Your task to perform on an android device: Open wifi settings Image 0: 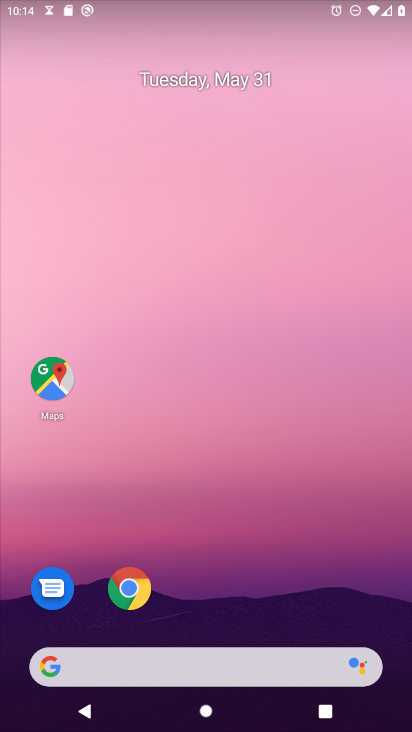
Step 0: drag from (230, 594) to (190, 105)
Your task to perform on an android device: Open wifi settings Image 1: 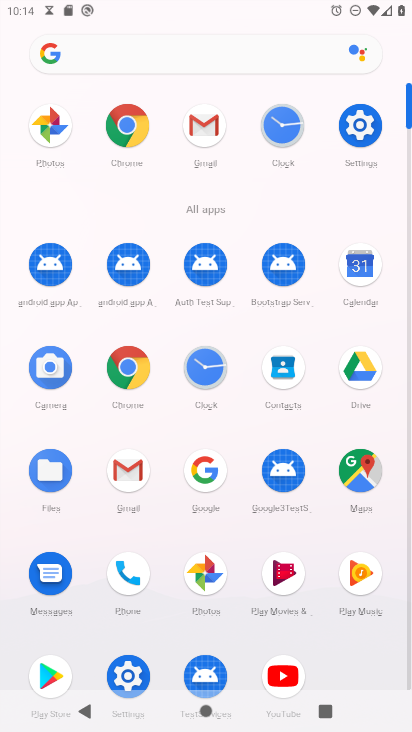
Step 1: click (359, 125)
Your task to perform on an android device: Open wifi settings Image 2: 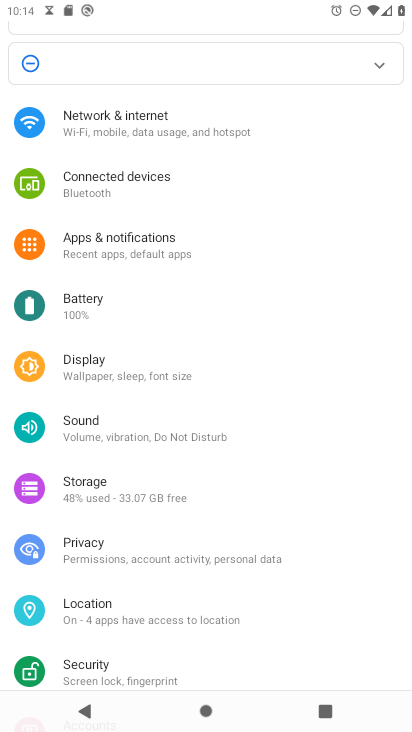
Step 2: click (147, 131)
Your task to perform on an android device: Open wifi settings Image 3: 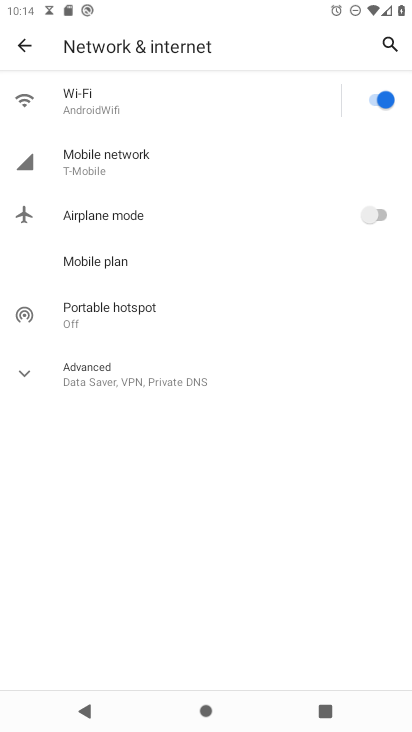
Step 3: click (84, 103)
Your task to perform on an android device: Open wifi settings Image 4: 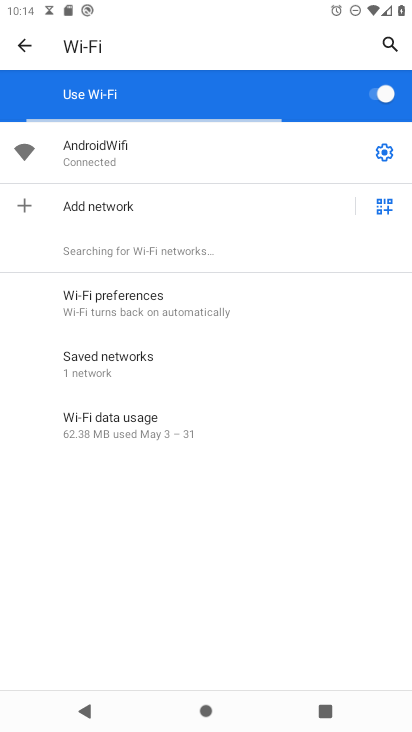
Step 4: click (381, 154)
Your task to perform on an android device: Open wifi settings Image 5: 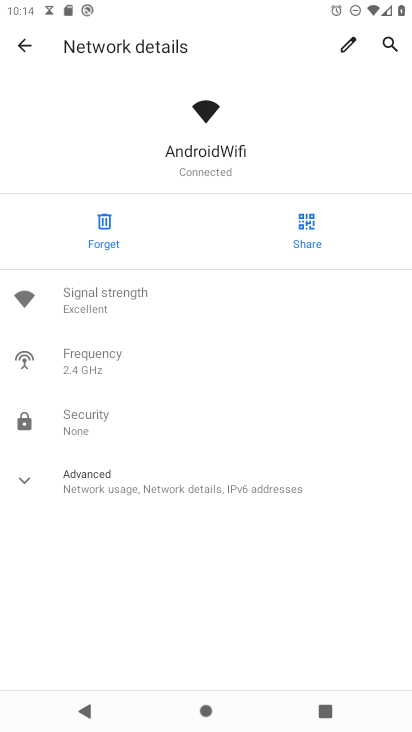
Step 5: task complete